Your task to perform on an android device: set default search engine in the chrome app Image 0: 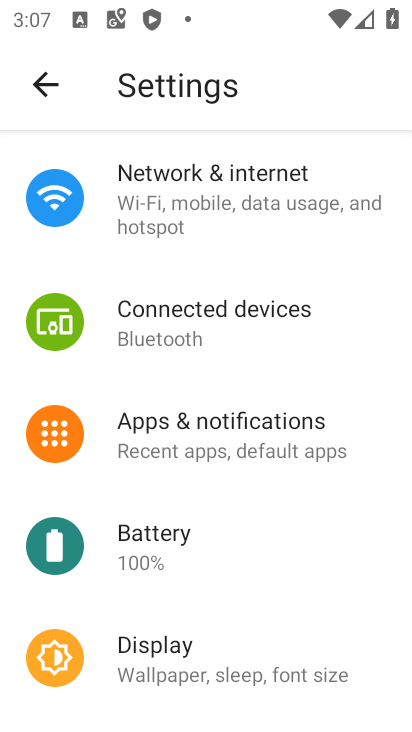
Step 0: press home button
Your task to perform on an android device: set default search engine in the chrome app Image 1: 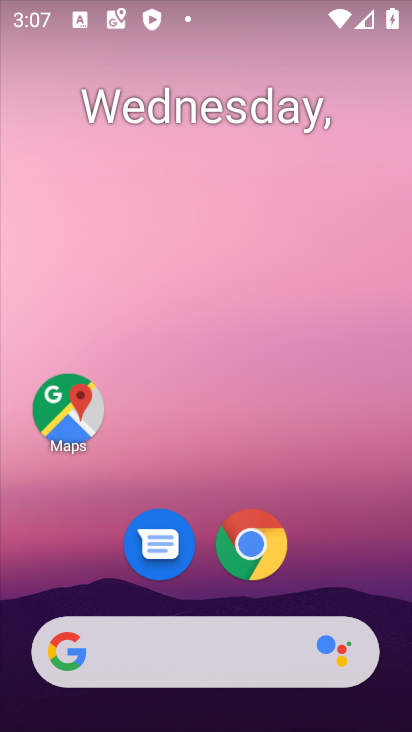
Step 1: click (252, 540)
Your task to perform on an android device: set default search engine in the chrome app Image 2: 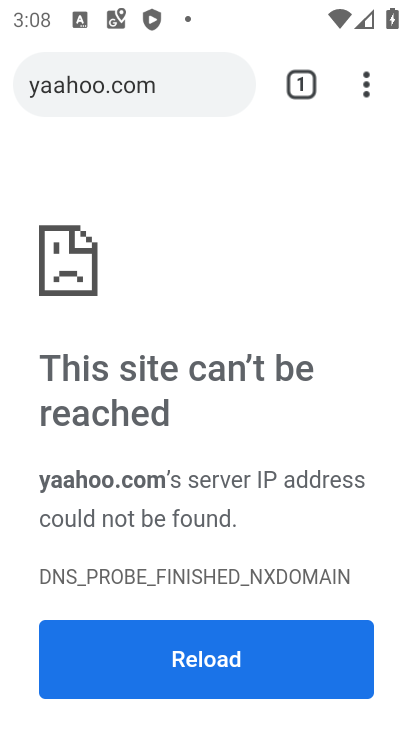
Step 2: click (364, 90)
Your task to perform on an android device: set default search engine in the chrome app Image 3: 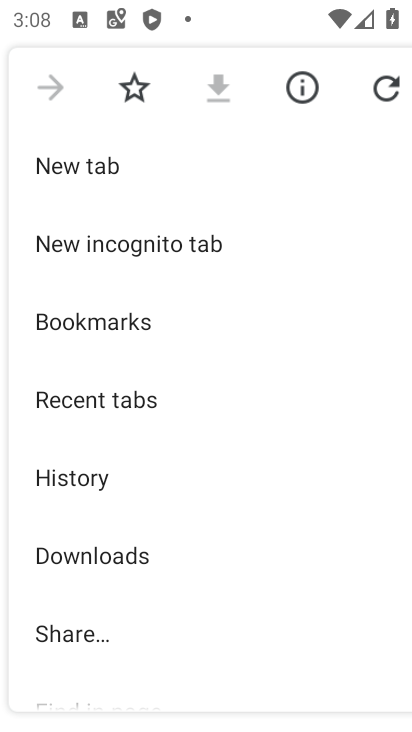
Step 3: drag from (187, 639) to (261, 289)
Your task to perform on an android device: set default search engine in the chrome app Image 4: 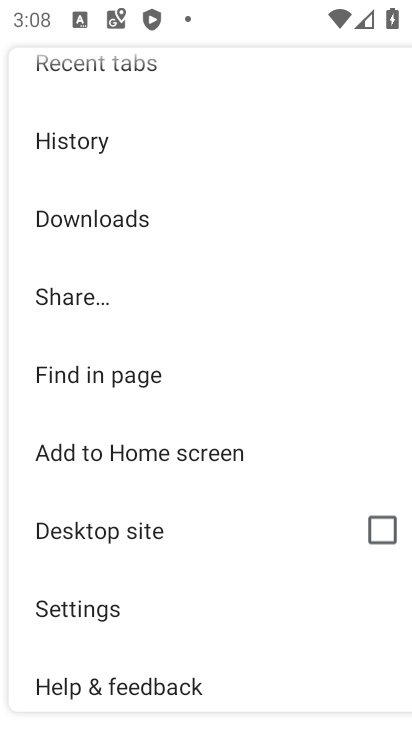
Step 4: click (61, 600)
Your task to perform on an android device: set default search engine in the chrome app Image 5: 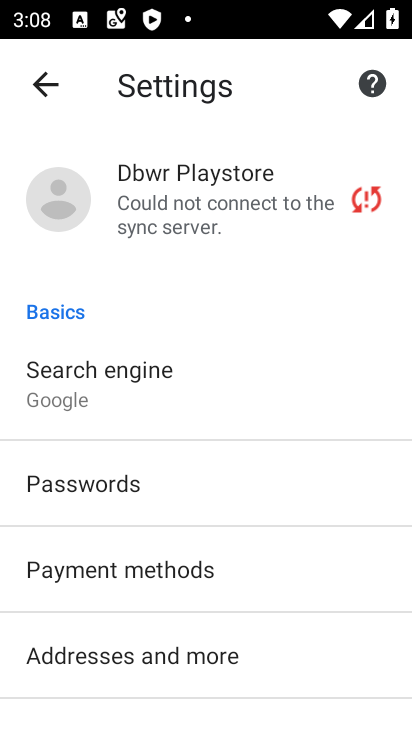
Step 5: click (53, 379)
Your task to perform on an android device: set default search engine in the chrome app Image 6: 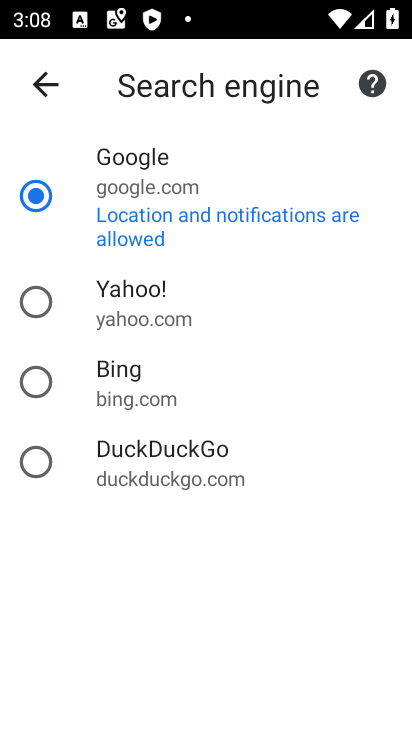
Step 6: click (28, 300)
Your task to perform on an android device: set default search engine in the chrome app Image 7: 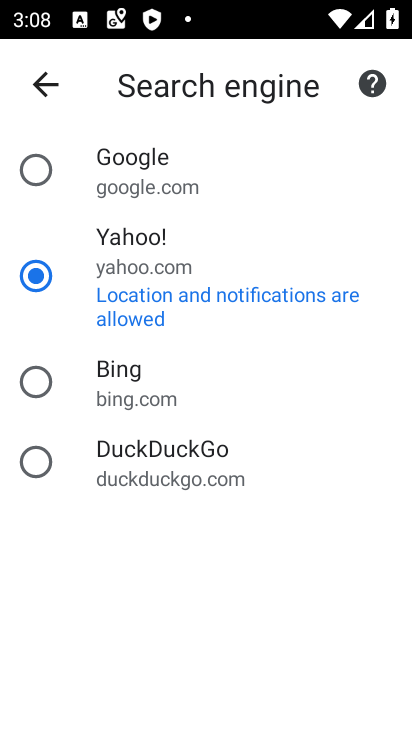
Step 7: task complete